Your task to perform on an android device: change the clock display to analog Image 0: 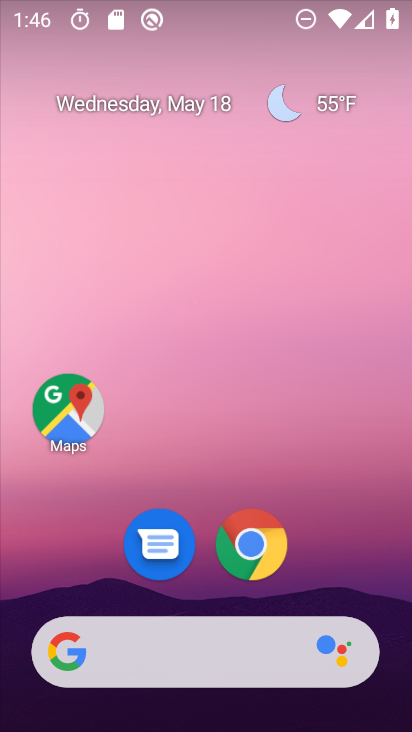
Step 0: drag from (316, 529) to (274, 142)
Your task to perform on an android device: change the clock display to analog Image 1: 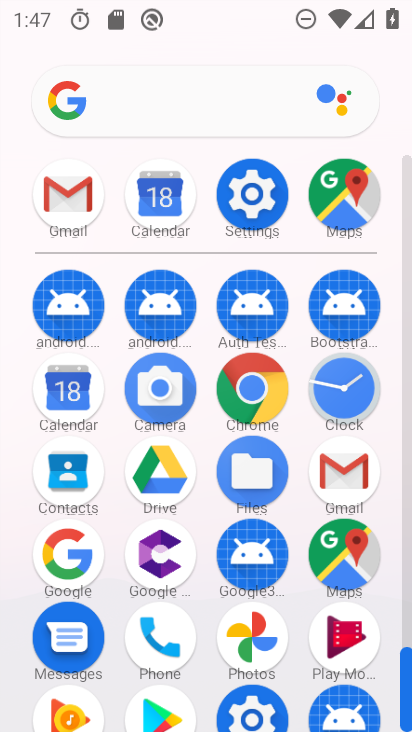
Step 1: click (347, 390)
Your task to perform on an android device: change the clock display to analog Image 2: 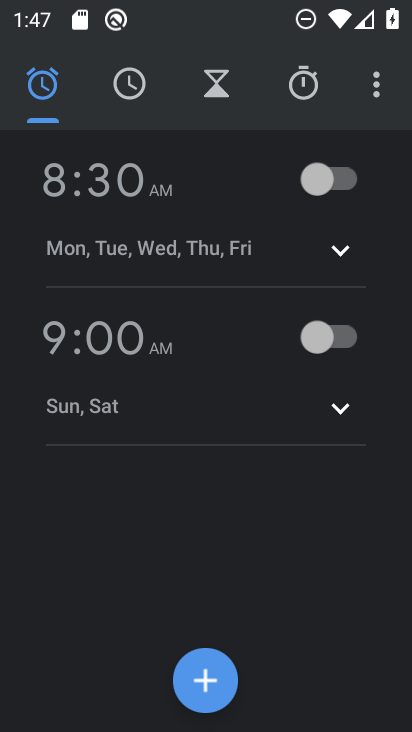
Step 2: click (384, 85)
Your task to perform on an android device: change the clock display to analog Image 3: 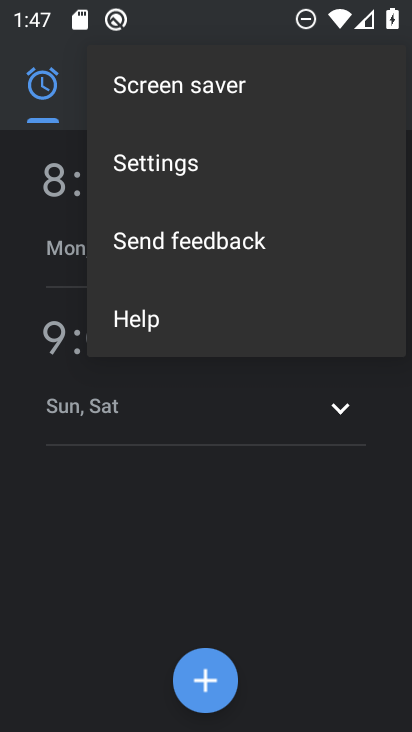
Step 3: click (221, 165)
Your task to perform on an android device: change the clock display to analog Image 4: 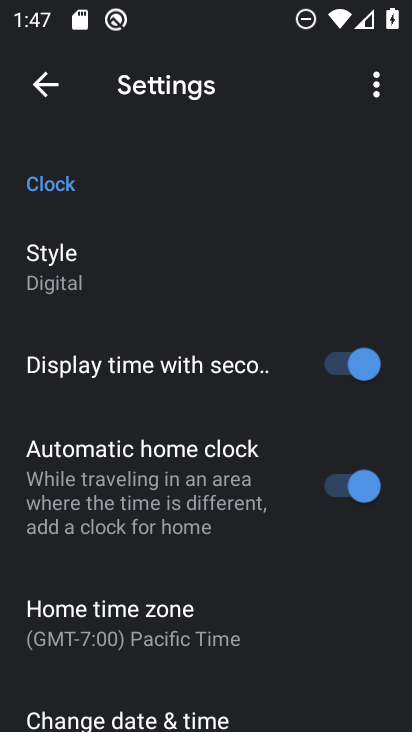
Step 4: click (83, 284)
Your task to perform on an android device: change the clock display to analog Image 5: 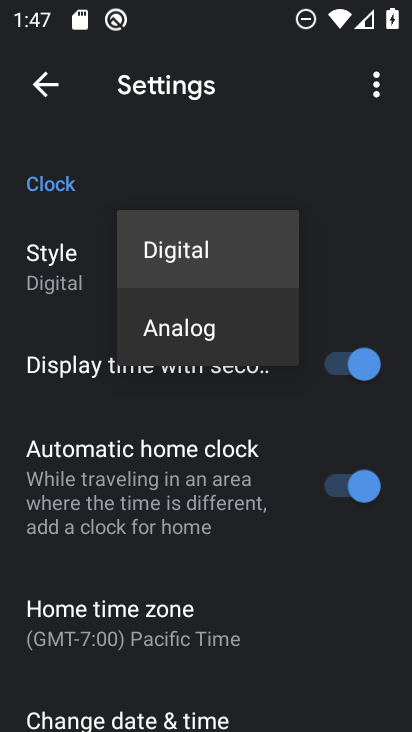
Step 5: click (191, 315)
Your task to perform on an android device: change the clock display to analog Image 6: 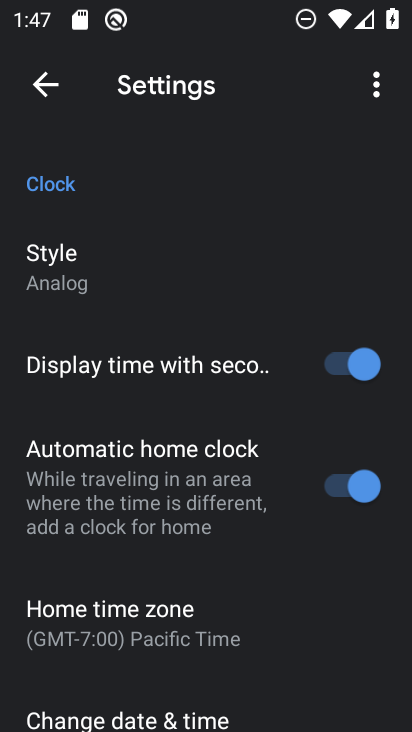
Step 6: task complete